Your task to perform on an android device: change notification settings in the gmail app Image 0: 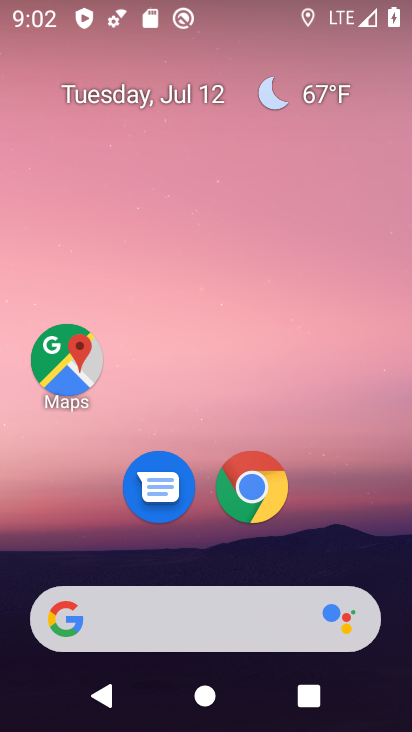
Step 0: drag from (161, 546) to (256, 12)
Your task to perform on an android device: change notification settings in the gmail app Image 1: 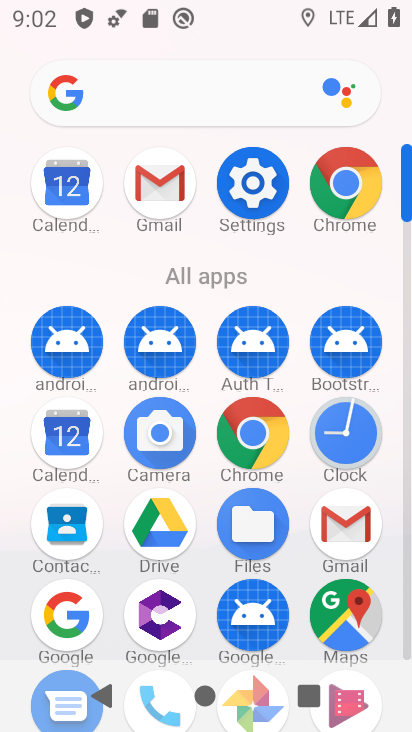
Step 1: click (154, 196)
Your task to perform on an android device: change notification settings in the gmail app Image 2: 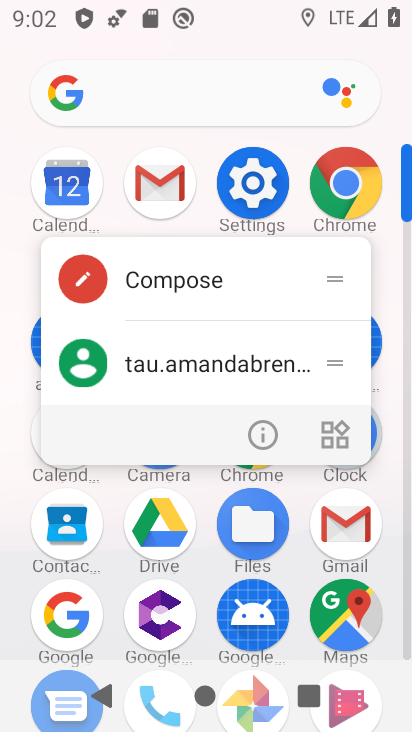
Step 2: click (264, 433)
Your task to perform on an android device: change notification settings in the gmail app Image 3: 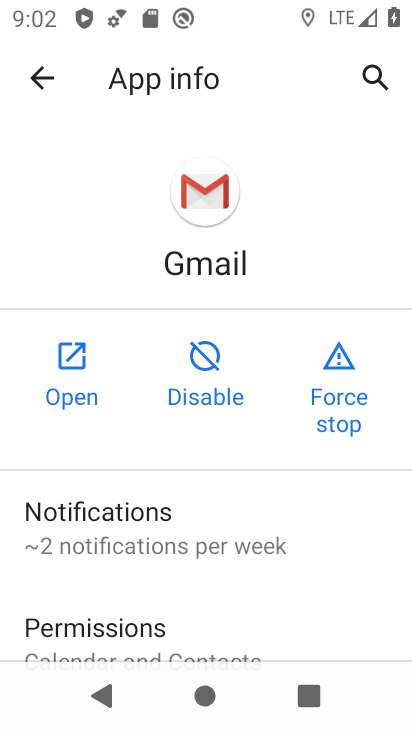
Step 3: click (169, 529)
Your task to perform on an android device: change notification settings in the gmail app Image 4: 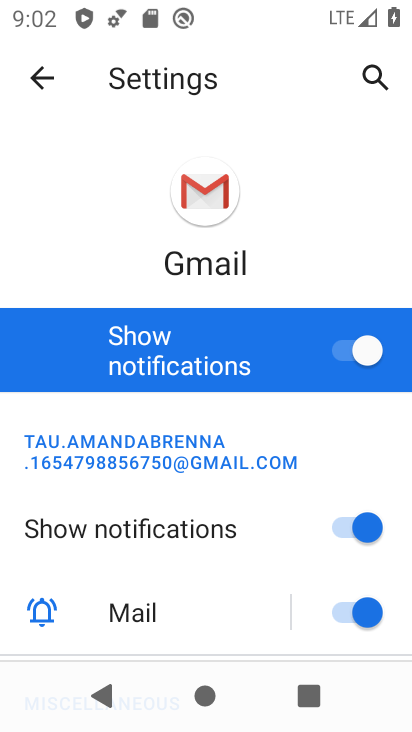
Step 4: drag from (162, 586) to (279, 295)
Your task to perform on an android device: change notification settings in the gmail app Image 5: 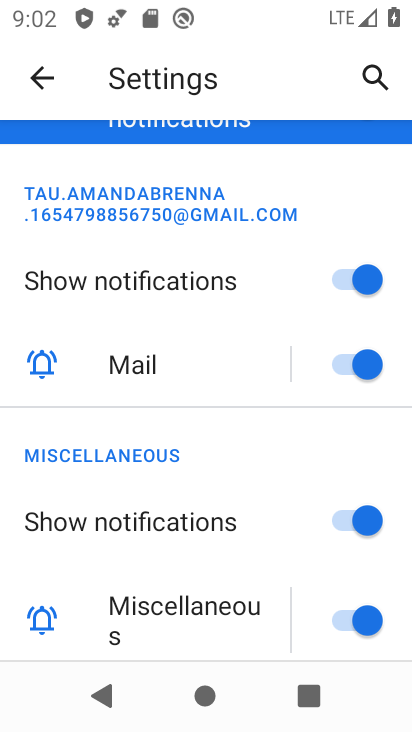
Step 5: click (401, 273)
Your task to perform on an android device: change notification settings in the gmail app Image 6: 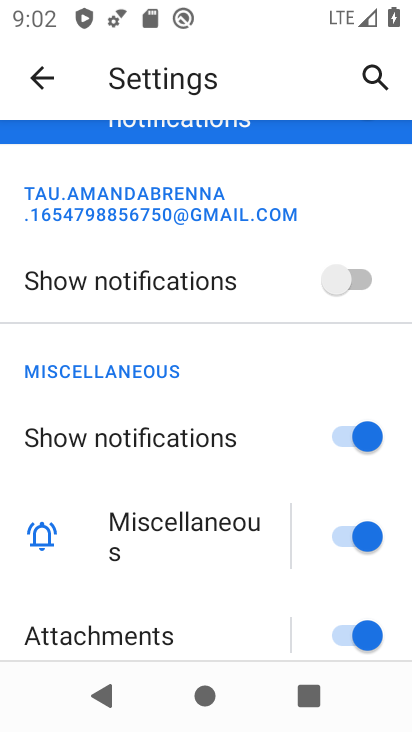
Step 6: task complete